Your task to perform on an android device: Go to notification settings Image 0: 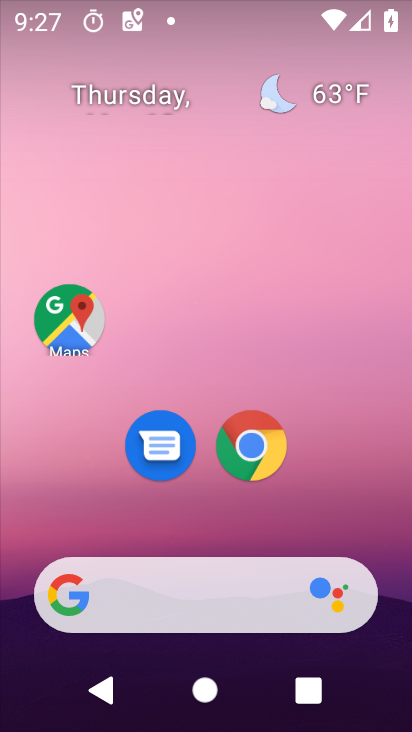
Step 0: drag from (156, 531) to (211, 220)
Your task to perform on an android device: Go to notification settings Image 1: 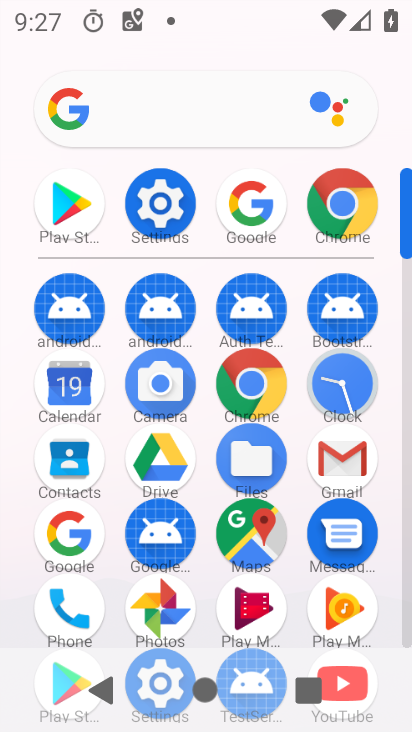
Step 1: click (171, 204)
Your task to perform on an android device: Go to notification settings Image 2: 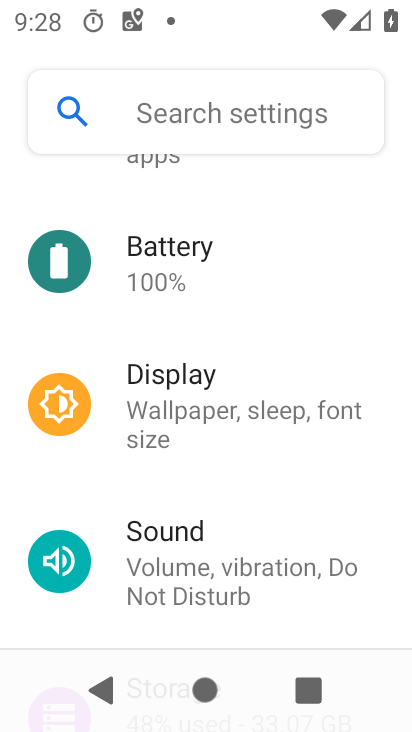
Step 2: drag from (105, 461) to (163, 730)
Your task to perform on an android device: Go to notification settings Image 3: 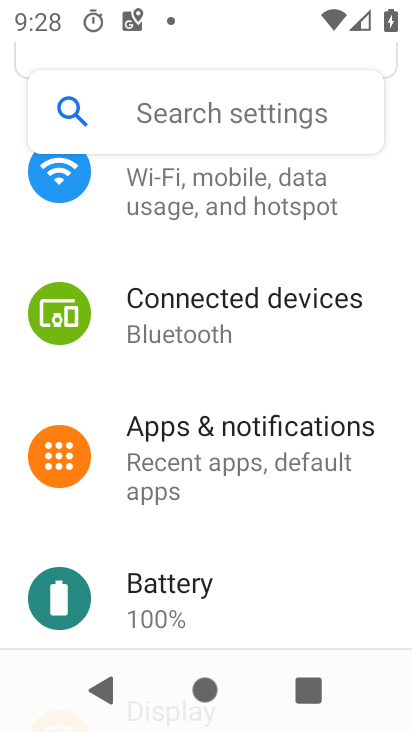
Step 3: click (201, 436)
Your task to perform on an android device: Go to notification settings Image 4: 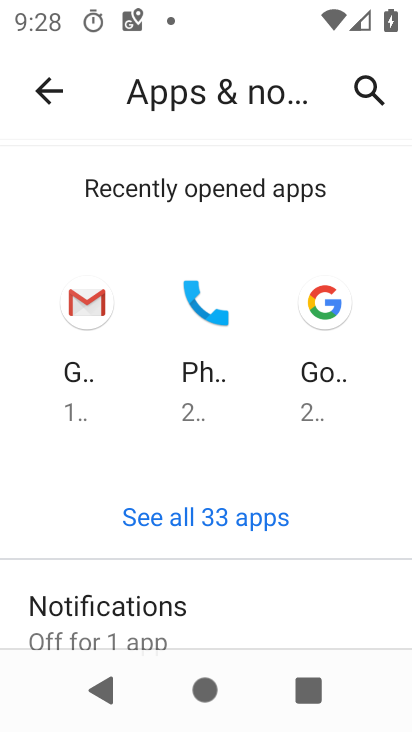
Step 4: click (181, 608)
Your task to perform on an android device: Go to notification settings Image 5: 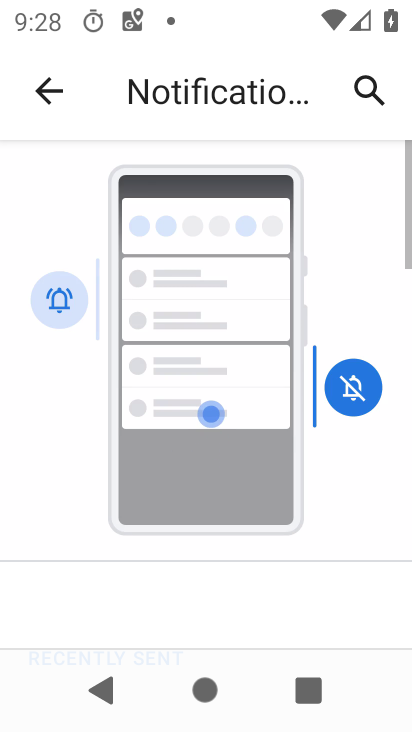
Step 5: drag from (277, 425) to (290, 155)
Your task to perform on an android device: Go to notification settings Image 6: 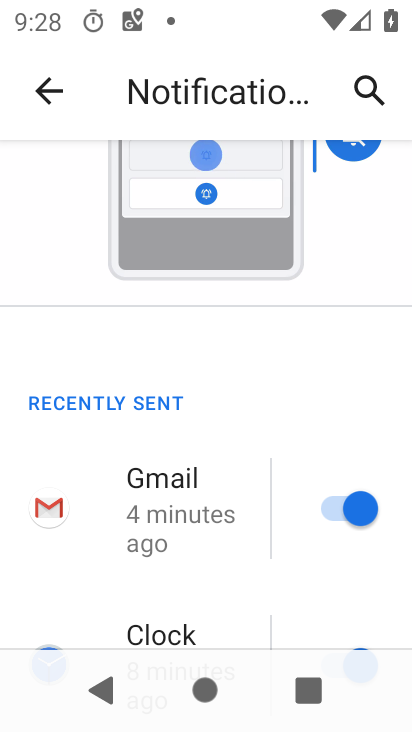
Step 6: drag from (328, 570) to (361, 260)
Your task to perform on an android device: Go to notification settings Image 7: 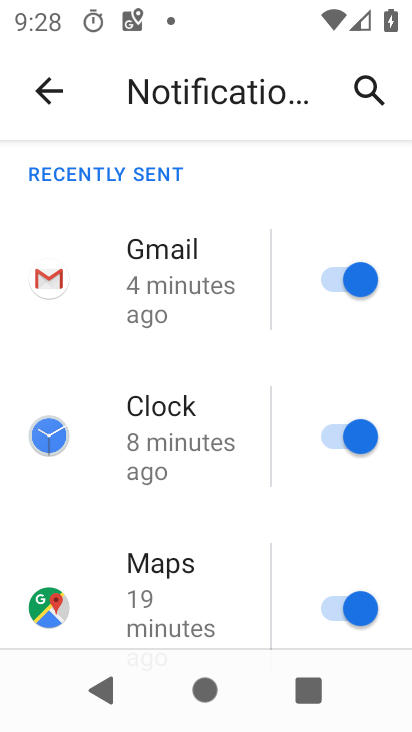
Step 7: click (354, 432)
Your task to perform on an android device: Go to notification settings Image 8: 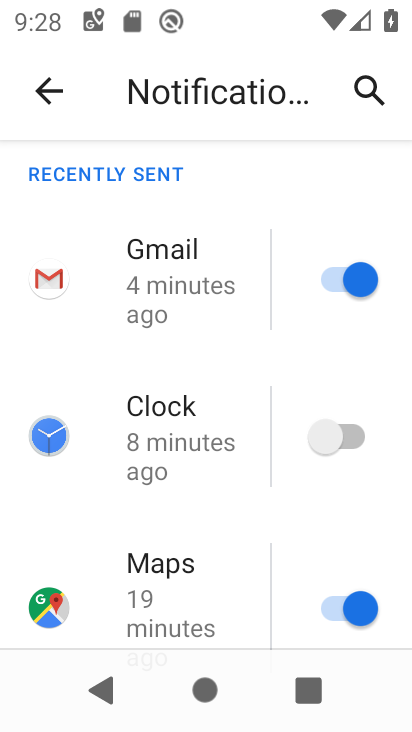
Step 8: task complete